Your task to perform on an android device: Open Wikipedia Image 0: 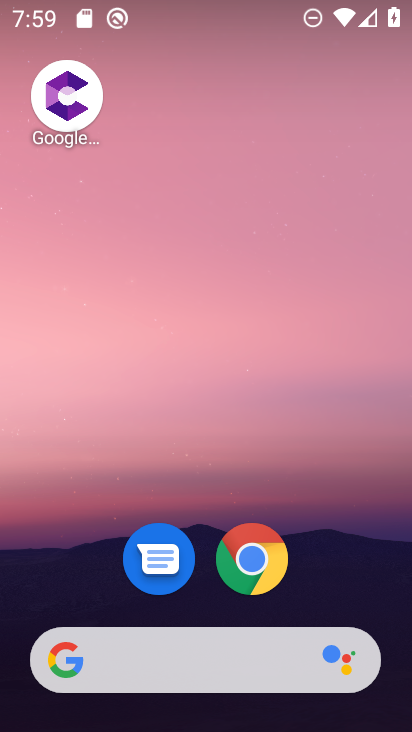
Step 0: click (240, 552)
Your task to perform on an android device: Open Wikipedia Image 1: 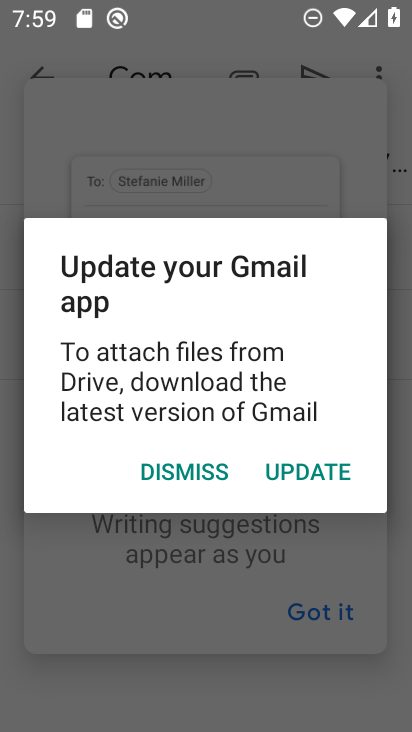
Step 1: click (180, 468)
Your task to perform on an android device: Open Wikipedia Image 2: 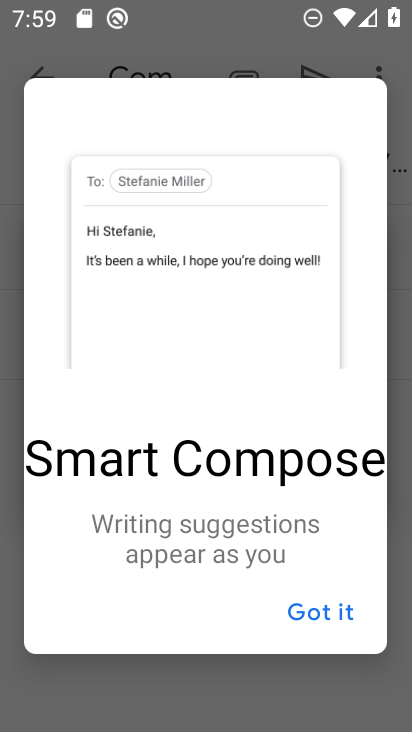
Step 2: click (332, 622)
Your task to perform on an android device: Open Wikipedia Image 3: 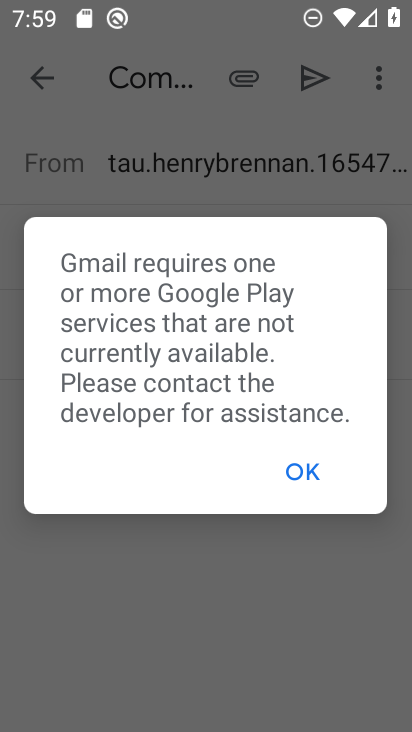
Step 3: click (313, 473)
Your task to perform on an android device: Open Wikipedia Image 4: 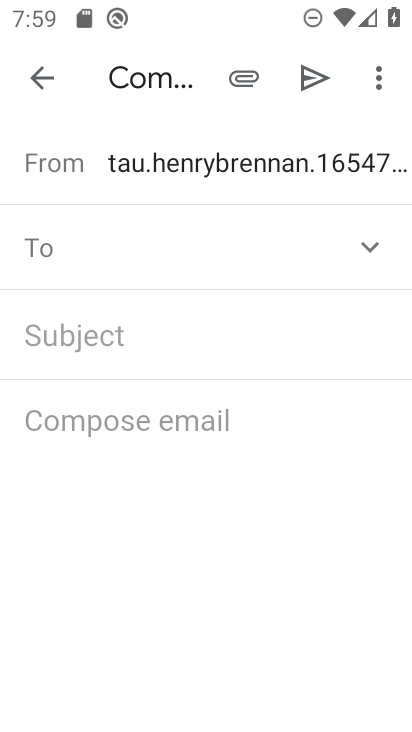
Step 4: click (44, 60)
Your task to perform on an android device: Open Wikipedia Image 5: 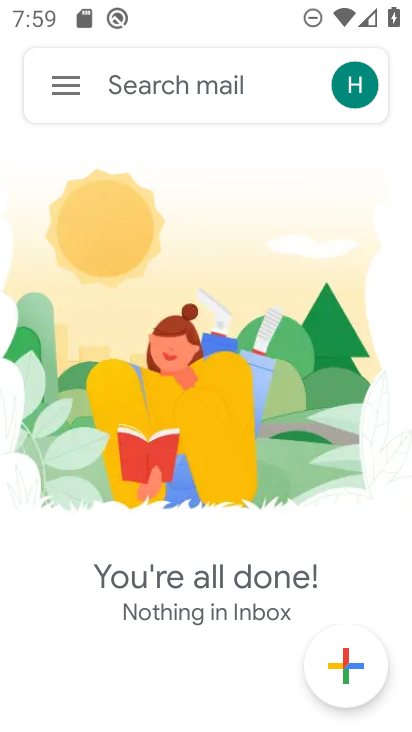
Step 5: press back button
Your task to perform on an android device: Open Wikipedia Image 6: 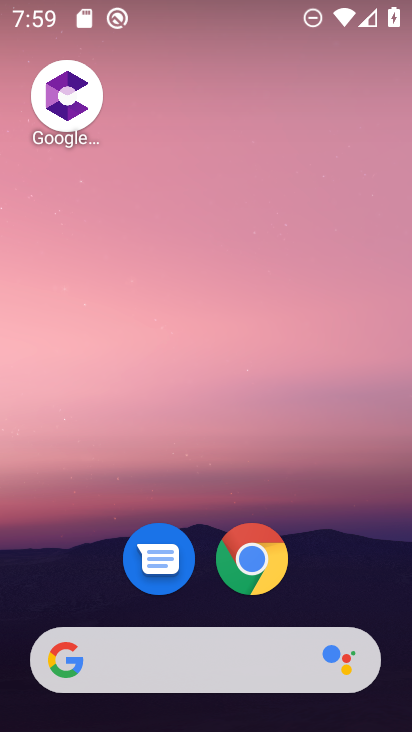
Step 6: click (243, 588)
Your task to perform on an android device: Open Wikipedia Image 7: 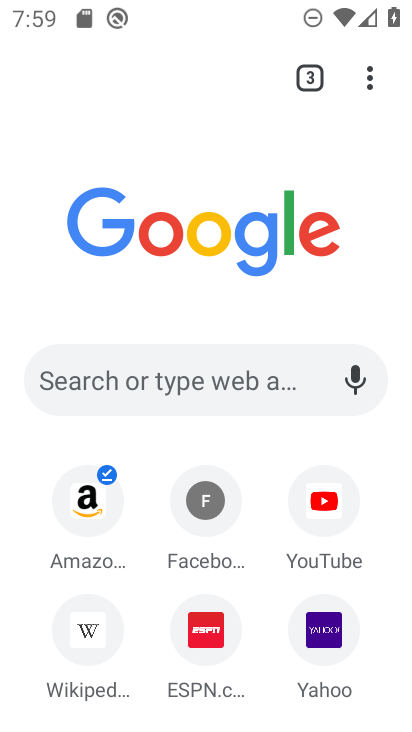
Step 7: click (75, 625)
Your task to perform on an android device: Open Wikipedia Image 8: 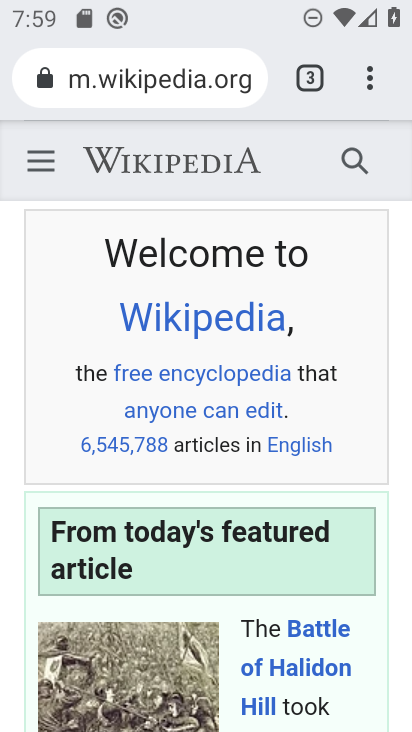
Step 8: task complete